Your task to perform on an android device: check the backup settings in the google photos Image 0: 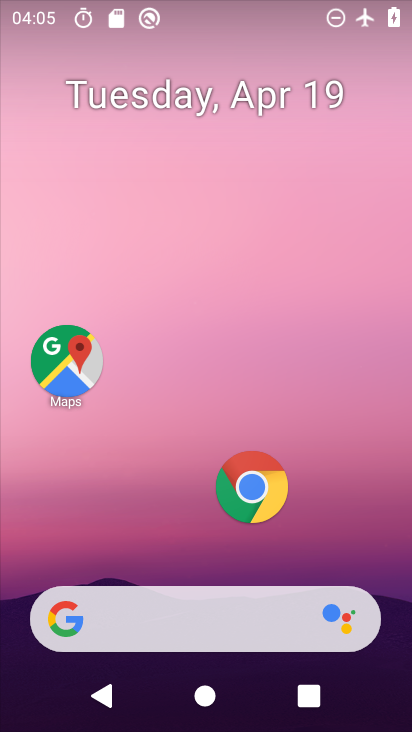
Step 0: drag from (192, 540) to (222, 4)
Your task to perform on an android device: check the backup settings in the google photos Image 1: 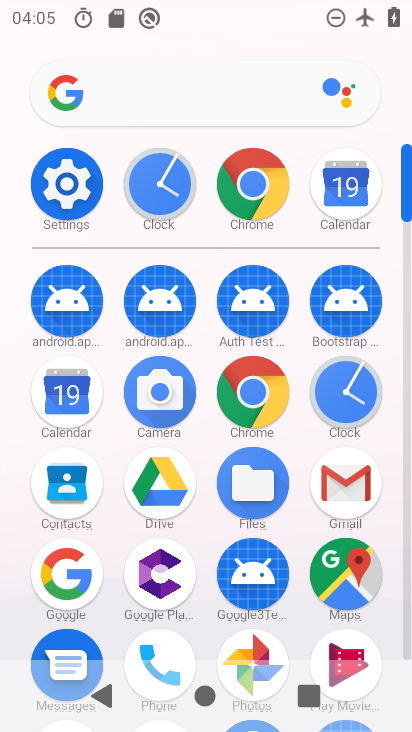
Step 1: click (268, 655)
Your task to perform on an android device: check the backup settings in the google photos Image 2: 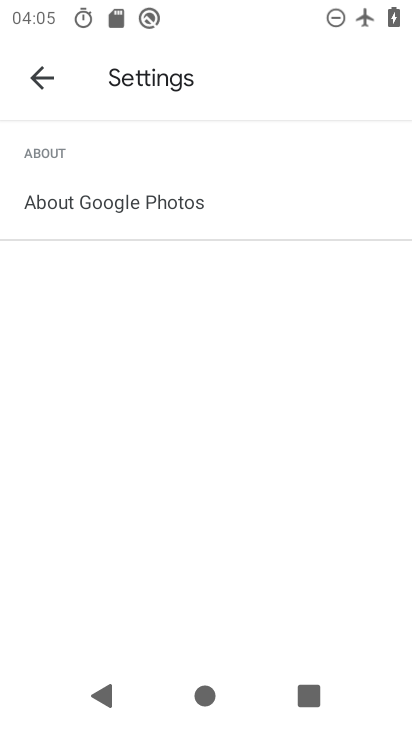
Step 2: click (36, 77)
Your task to perform on an android device: check the backup settings in the google photos Image 3: 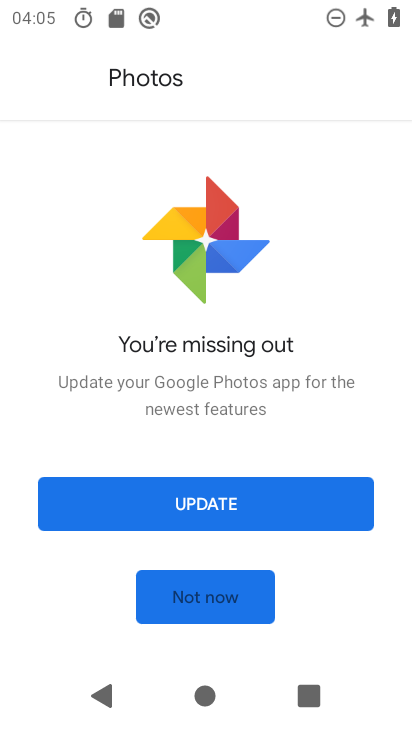
Step 3: click (218, 597)
Your task to perform on an android device: check the backup settings in the google photos Image 4: 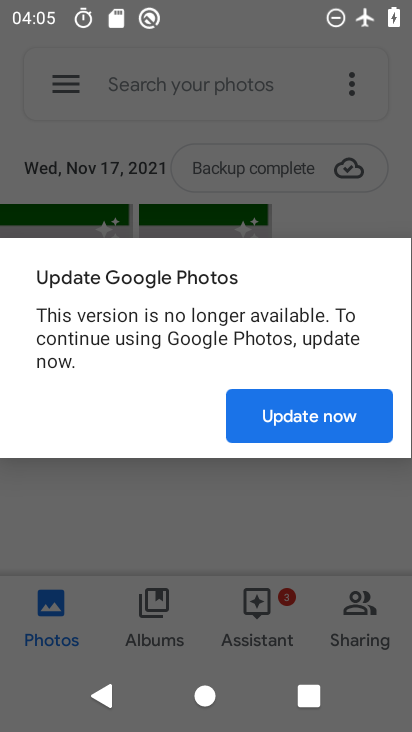
Step 4: click (204, 499)
Your task to perform on an android device: check the backup settings in the google photos Image 5: 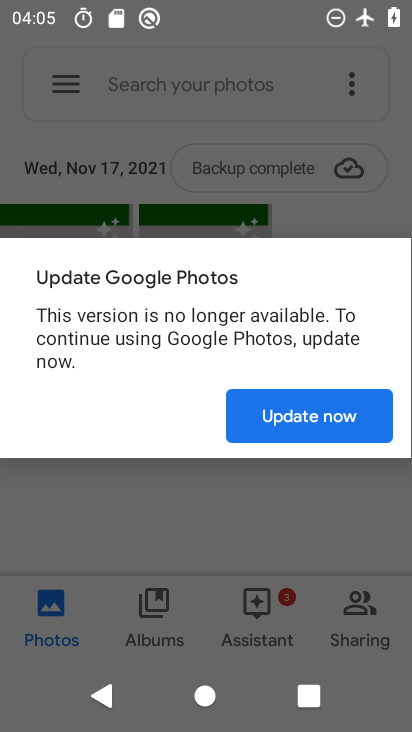
Step 5: click (306, 415)
Your task to perform on an android device: check the backup settings in the google photos Image 6: 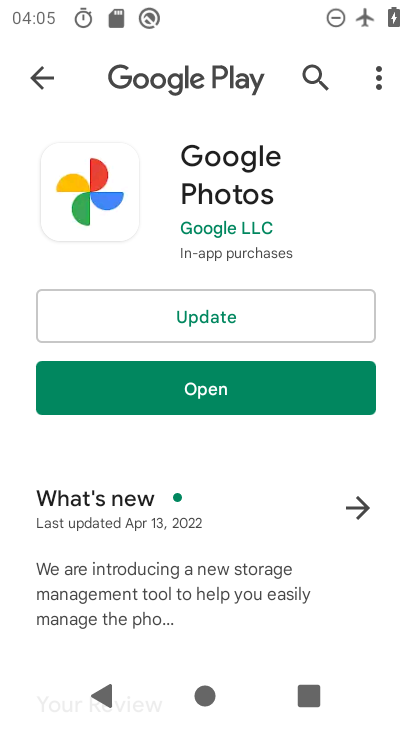
Step 6: click (228, 386)
Your task to perform on an android device: check the backup settings in the google photos Image 7: 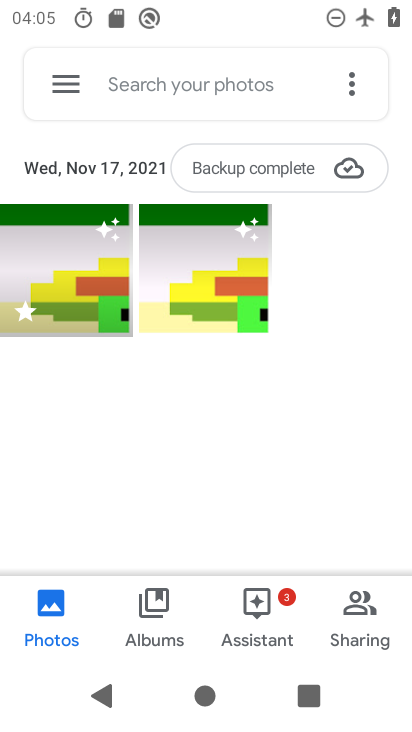
Step 7: click (80, 84)
Your task to perform on an android device: check the backup settings in the google photos Image 8: 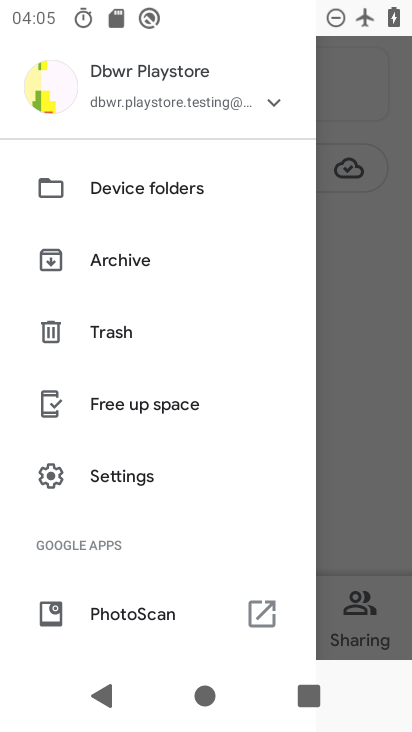
Step 8: click (159, 470)
Your task to perform on an android device: check the backup settings in the google photos Image 9: 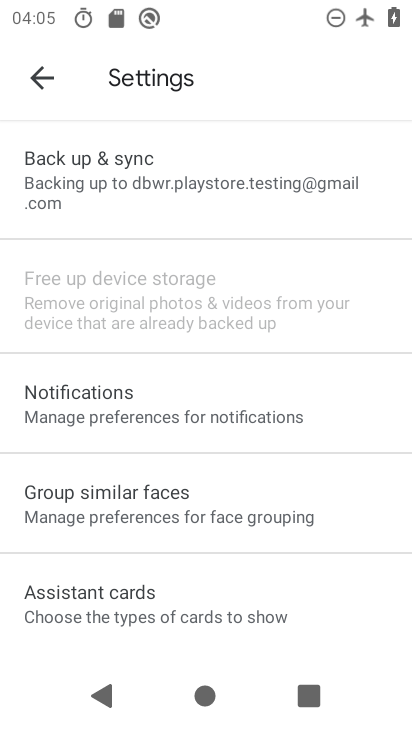
Step 9: click (168, 175)
Your task to perform on an android device: check the backup settings in the google photos Image 10: 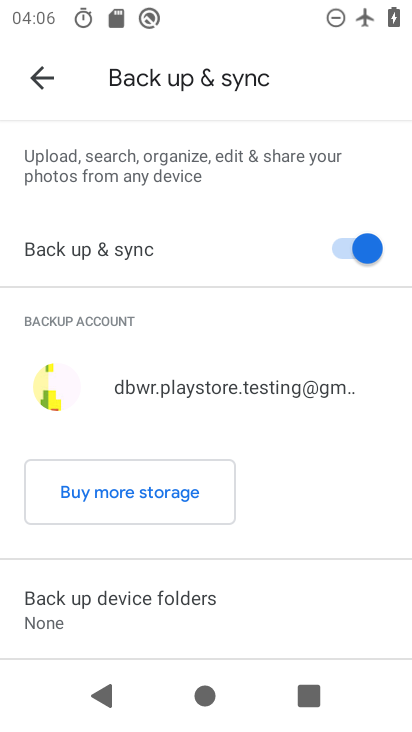
Step 10: task complete